Your task to perform on an android device: Open sound settings Image 0: 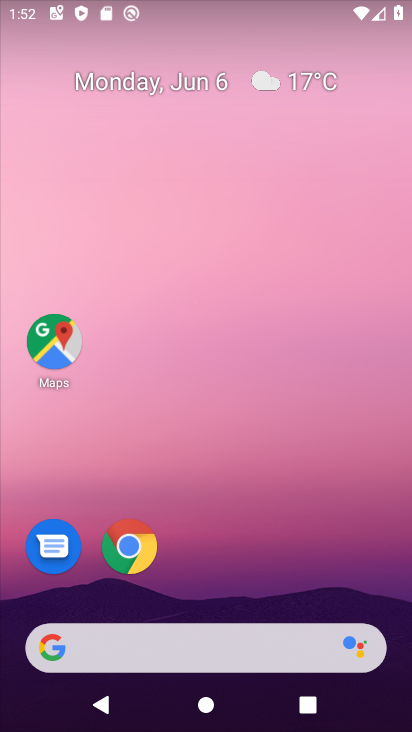
Step 0: drag from (245, 580) to (216, 125)
Your task to perform on an android device: Open sound settings Image 1: 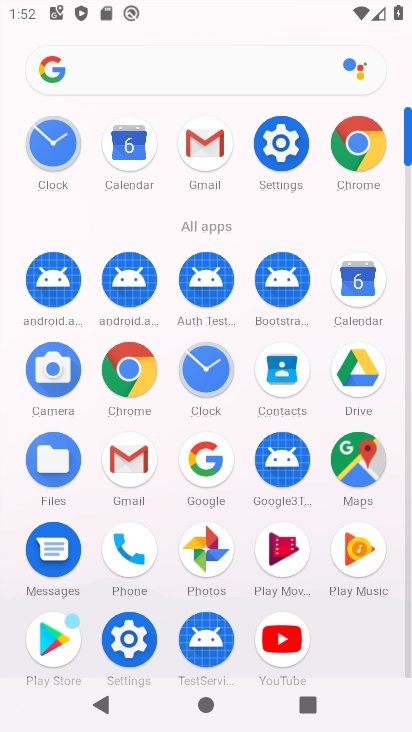
Step 1: click (272, 148)
Your task to perform on an android device: Open sound settings Image 2: 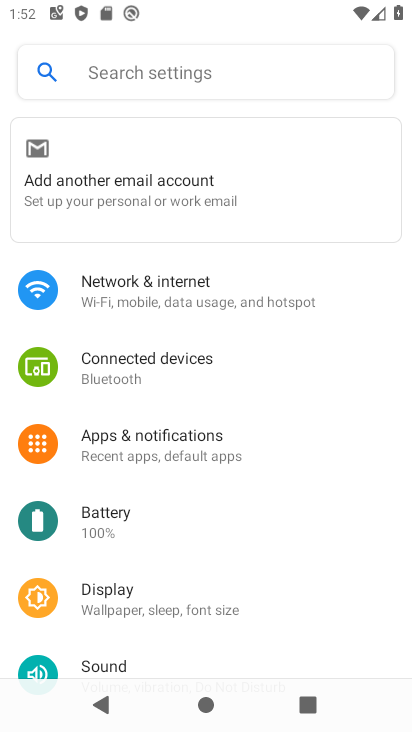
Step 2: drag from (181, 580) to (194, 391)
Your task to perform on an android device: Open sound settings Image 3: 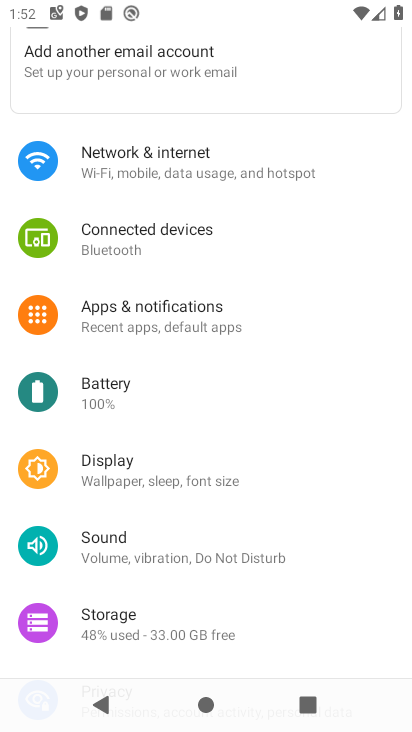
Step 3: click (216, 294)
Your task to perform on an android device: Open sound settings Image 4: 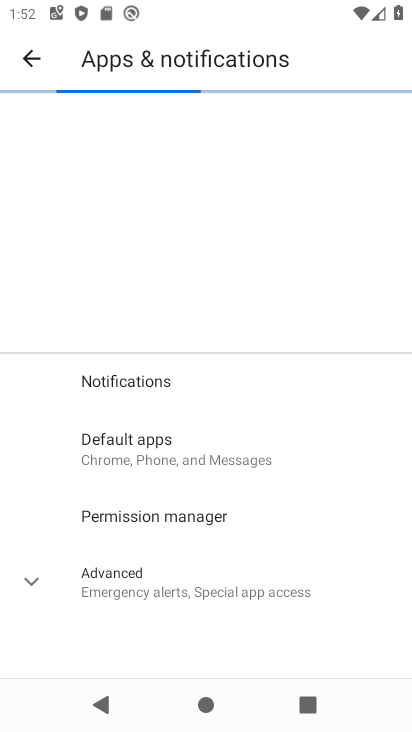
Step 4: click (126, 542)
Your task to perform on an android device: Open sound settings Image 5: 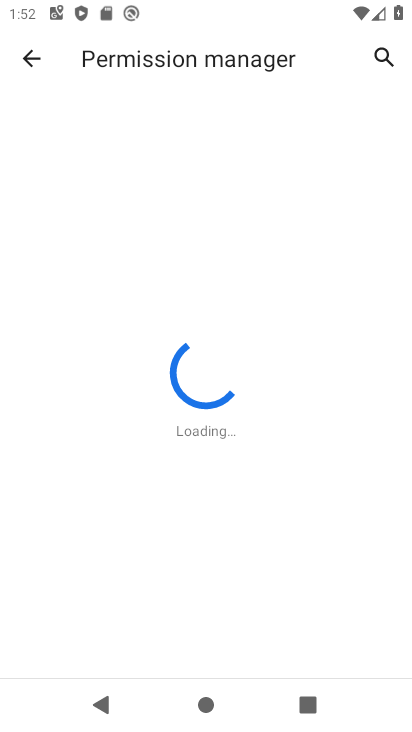
Step 5: click (39, 54)
Your task to perform on an android device: Open sound settings Image 6: 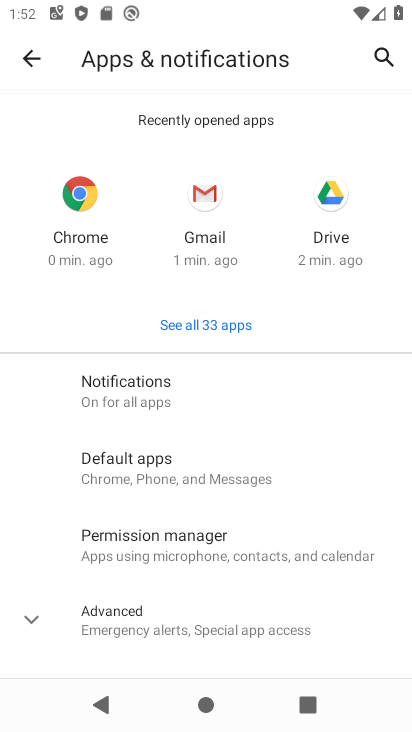
Step 6: click (39, 56)
Your task to perform on an android device: Open sound settings Image 7: 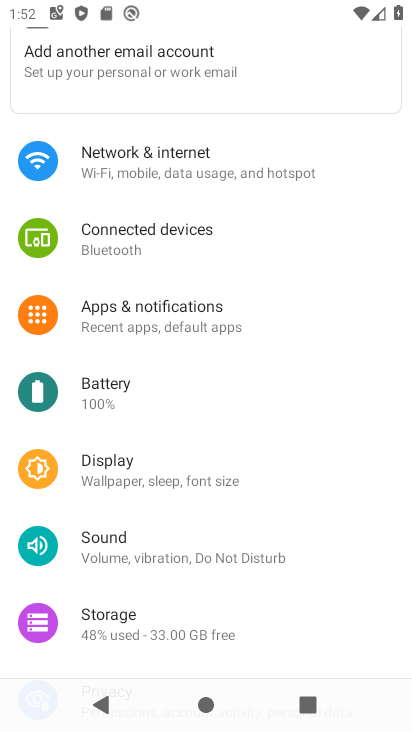
Step 7: click (143, 547)
Your task to perform on an android device: Open sound settings Image 8: 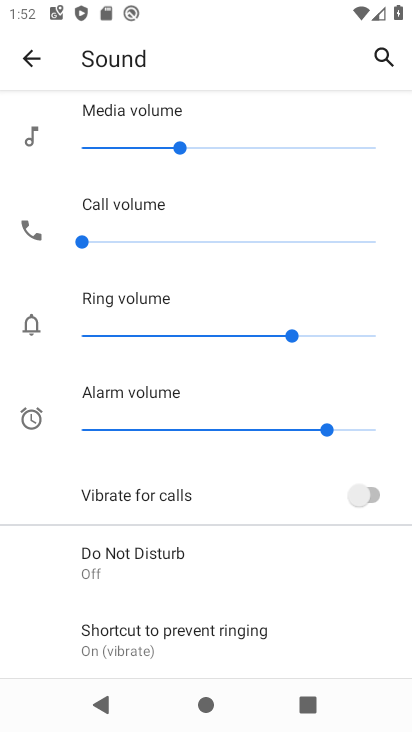
Step 8: task complete